Your task to perform on an android device: toggle wifi Image 0: 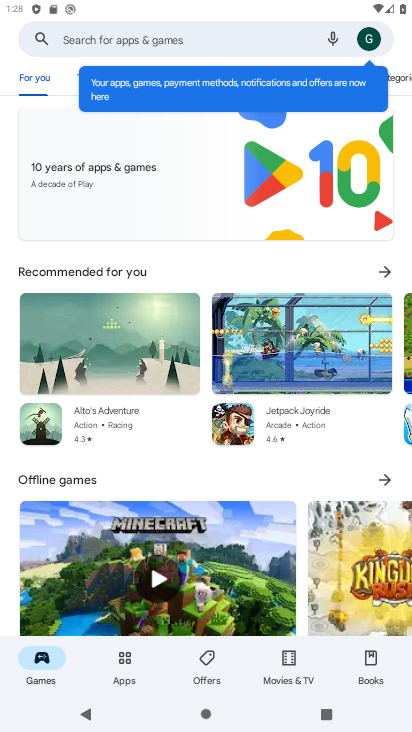
Step 0: press home button
Your task to perform on an android device: toggle wifi Image 1: 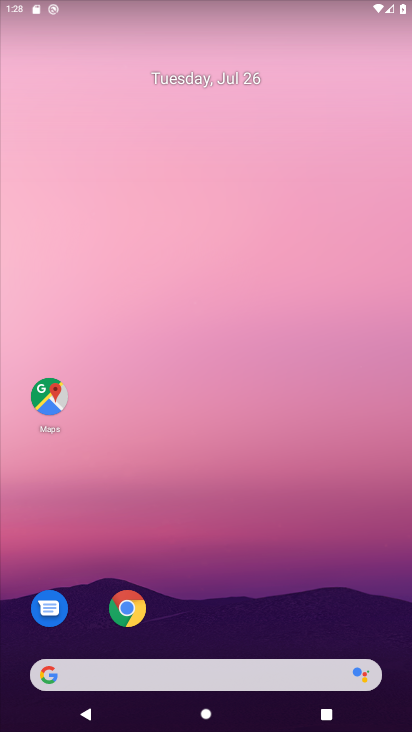
Step 1: drag from (330, 595) to (339, 101)
Your task to perform on an android device: toggle wifi Image 2: 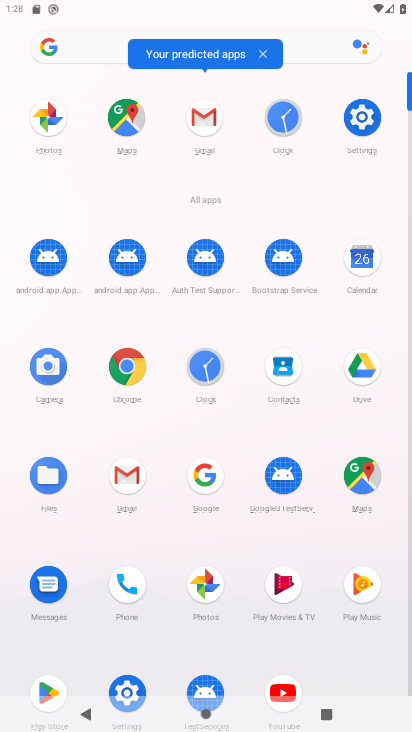
Step 2: click (354, 126)
Your task to perform on an android device: toggle wifi Image 3: 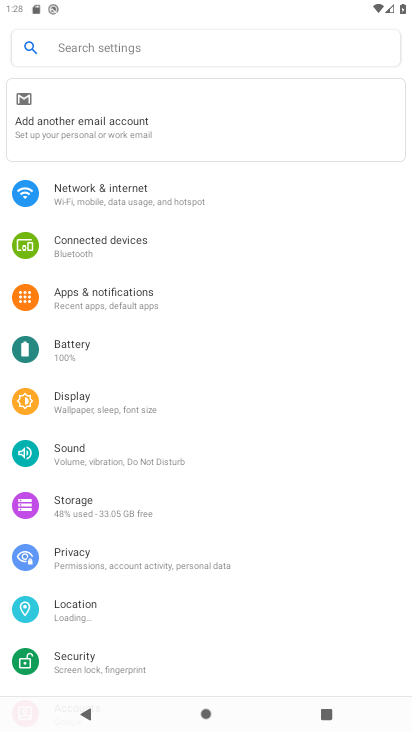
Step 3: drag from (318, 518) to (323, 412)
Your task to perform on an android device: toggle wifi Image 4: 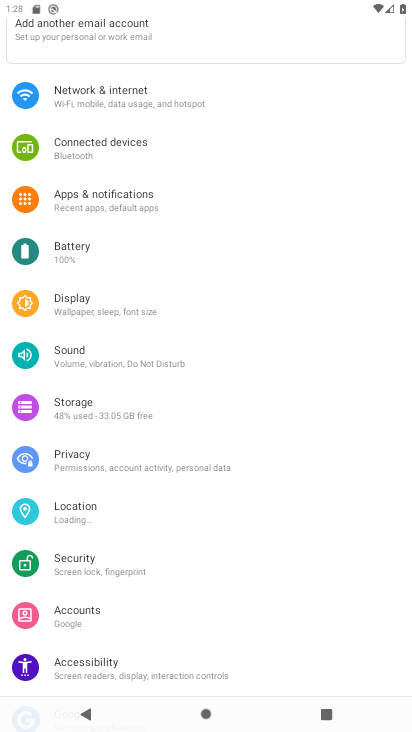
Step 4: drag from (311, 539) to (322, 447)
Your task to perform on an android device: toggle wifi Image 5: 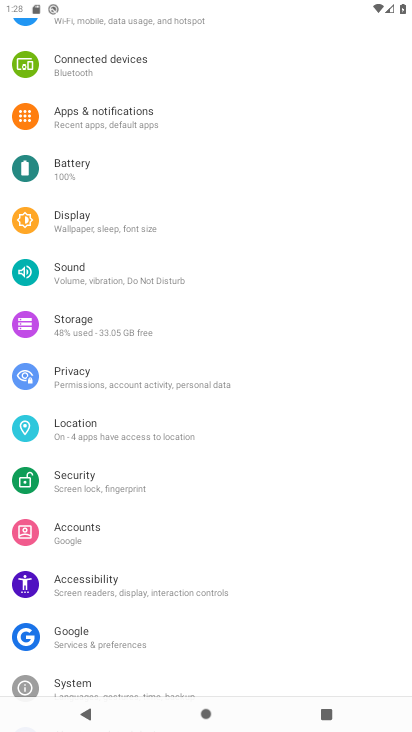
Step 5: drag from (315, 567) to (330, 420)
Your task to perform on an android device: toggle wifi Image 6: 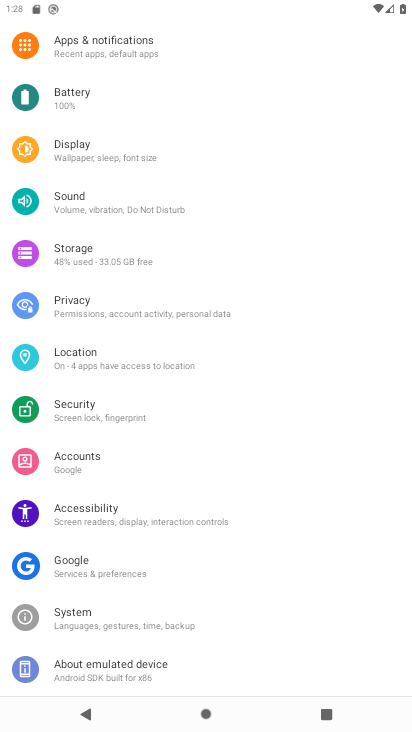
Step 6: drag from (343, 563) to (330, 398)
Your task to perform on an android device: toggle wifi Image 7: 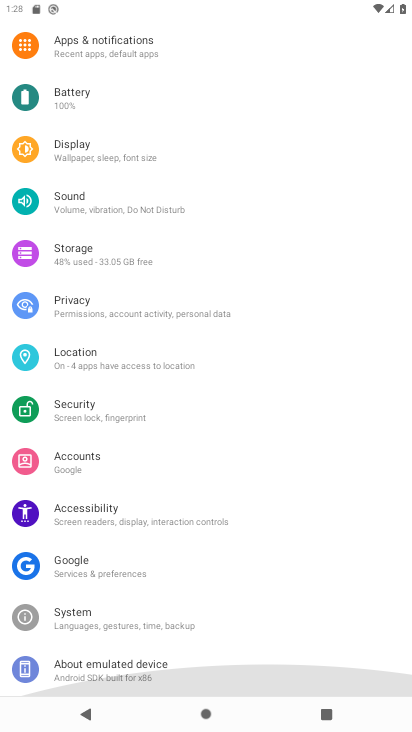
Step 7: drag from (312, 261) to (314, 366)
Your task to perform on an android device: toggle wifi Image 8: 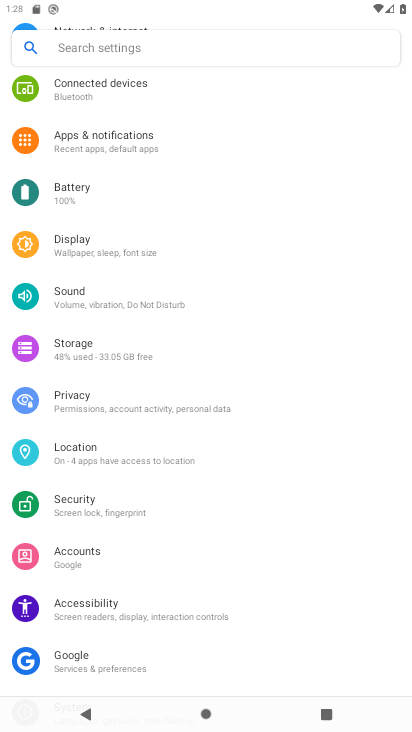
Step 8: drag from (316, 242) to (322, 363)
Your task to perform on an android device: toggle wifi Image 9: 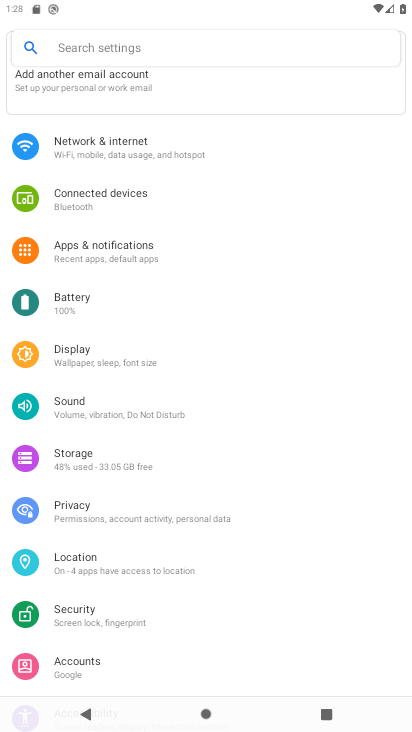
Step 9: drag from (312, 198) to (317, 364)
Your task to perform on an android device: toggle wifi Image 10: 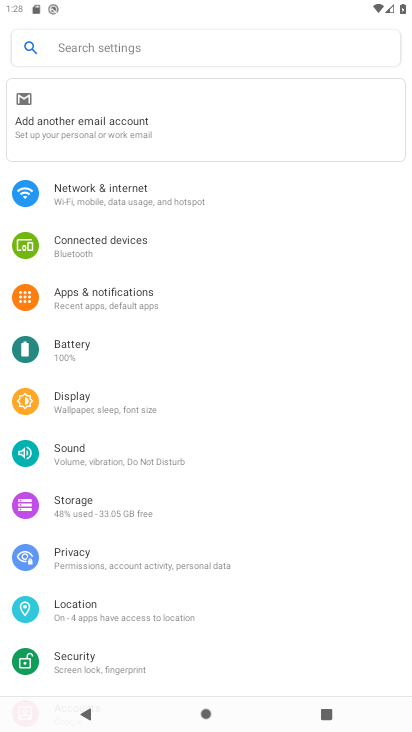
Step 10: click (181, 200)
Your task to perform on an android device: toggle wifi Image 11: 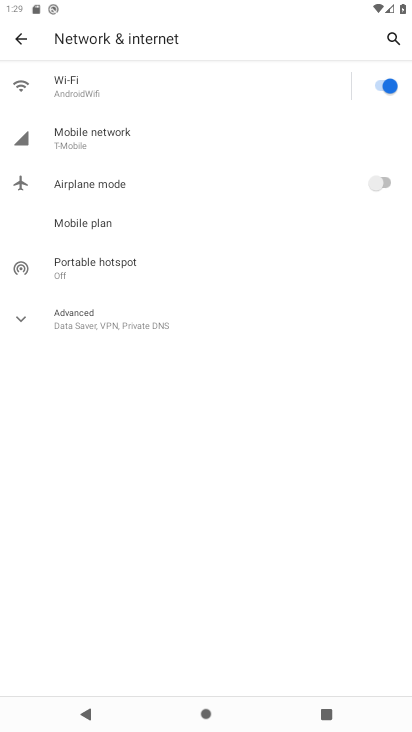
Step 11: click (376, 82)
Your task to perform on an android device: toggle wifi Image 12: 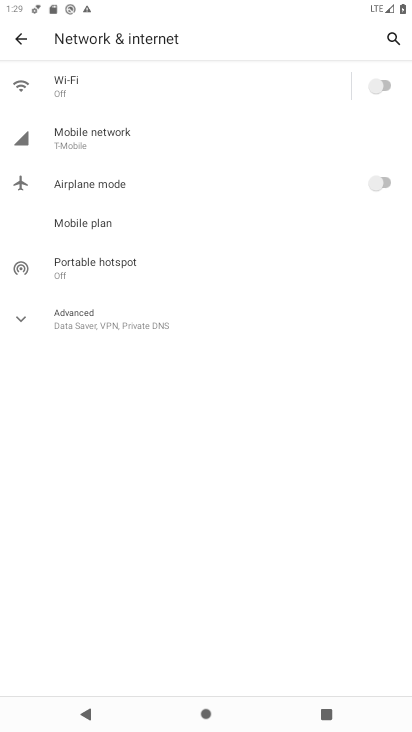
Step 12: task complete